Your task to perform on an android device: stop showing notifications on the lock screen Image 0: 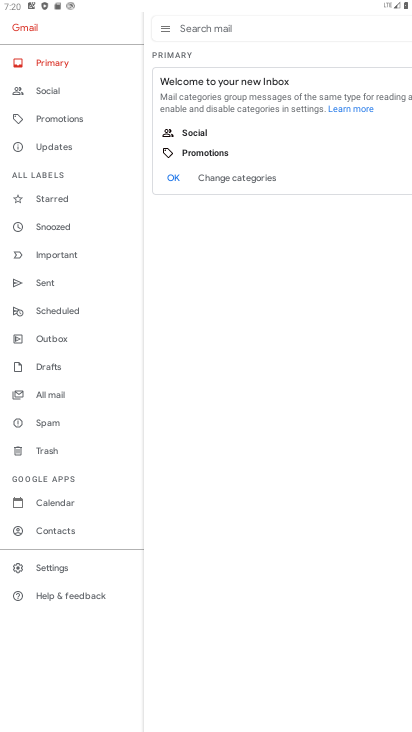
Step 0: press home button
Your task to perform on an android device: stop showing notifications on the lock screen Image 1: 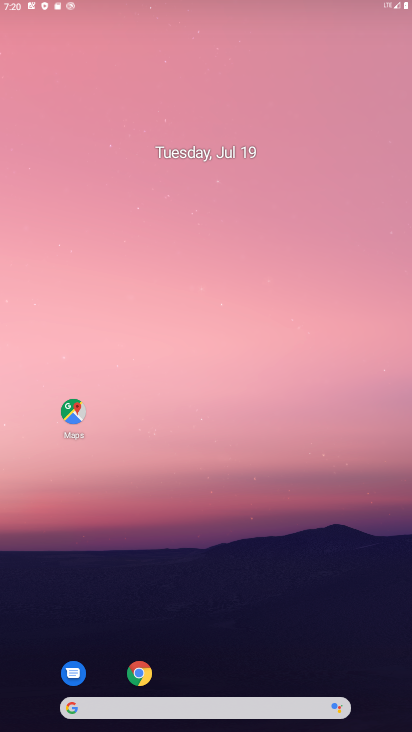
Step 1: drag from (288, 379) to (67, 498)
Your task to perform on an android device: stop showing notifications on the lock screen Image 2: 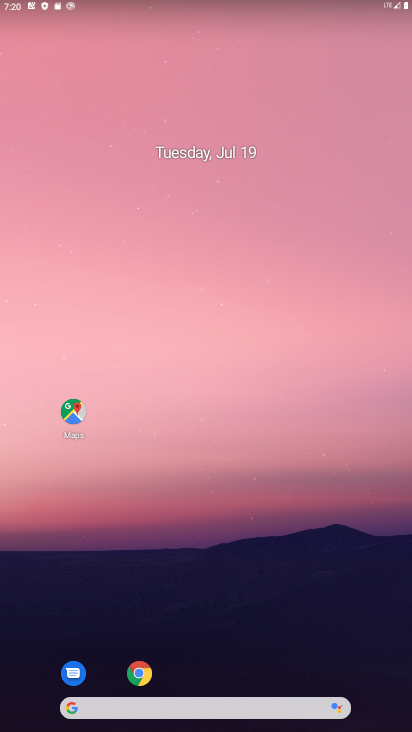
Step 2: drag from (332, 626) to (127, 71)
Your task to perform on an android device: stop showing notifications on the lock screen Image 3: 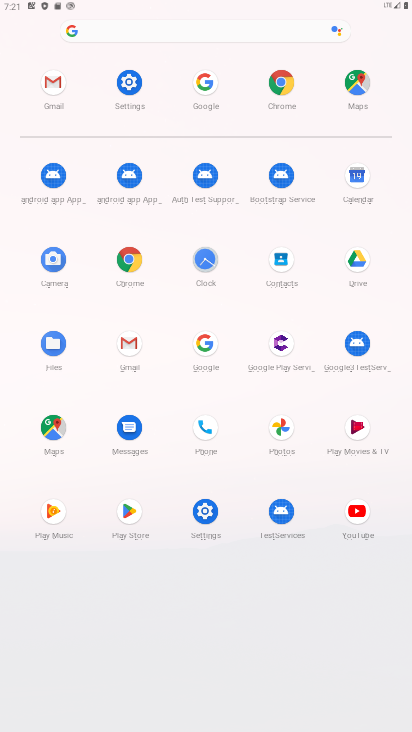
Step 3: click (127, 75)
Your task to perform on an android device: stop showing notifications on the lock screen Image 4: 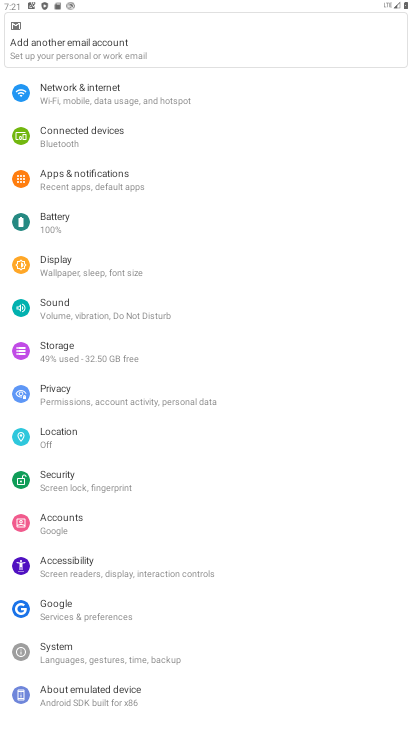
Step 4: click (104, 185)
Your task to perform on an android device: stop showing notifications on the lock screen Image 5: 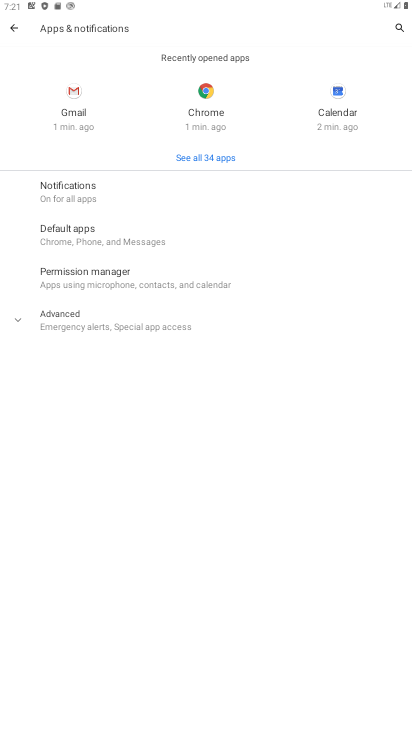
Step 5: click (92, 189)
Your task to perform on an android device: stop showing notifications on the lock screen Image 6: 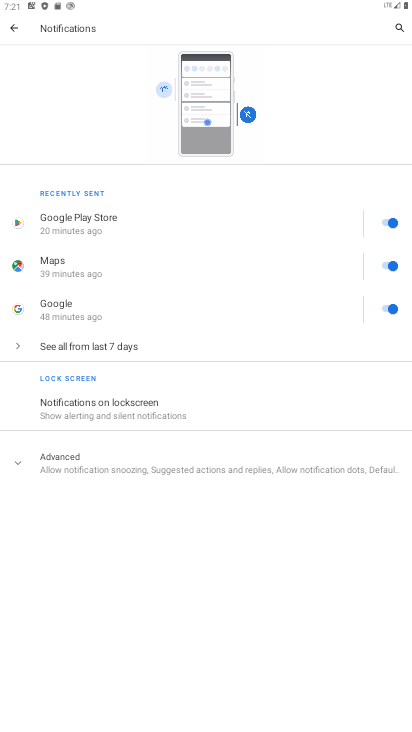
Step 6: click (158, 411)
Your task to perform on an android device: stop showing notifications on the lock screen Image 7: 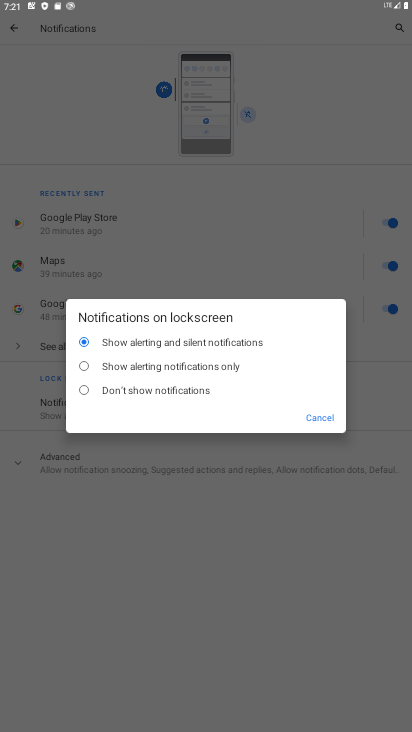
Step 7: click (95, 394)
Your task to perform on an android device: stop showing notifications on the lock screen Image 8: 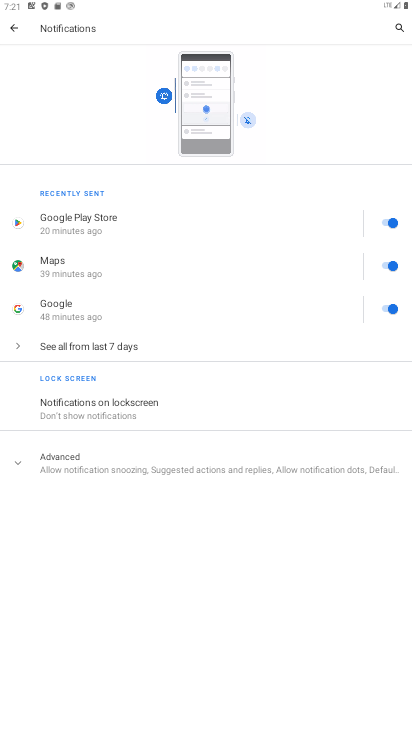
Step 8: task complete